Your task to perform on an android device: stop showing notifications on the lock screen Image 0: 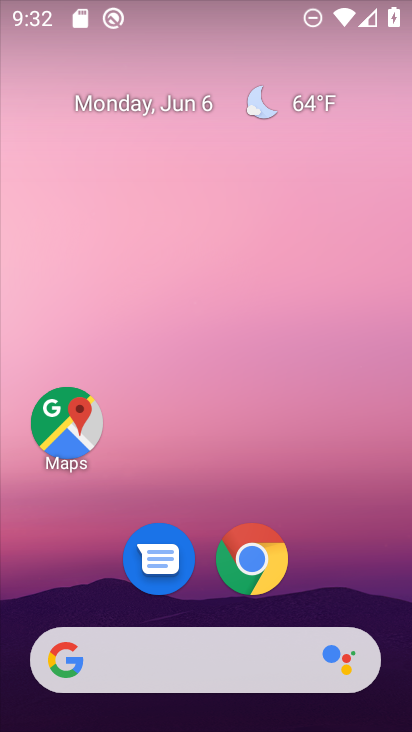
Step 0: drag from (235, 731) to (235, 28)
Your task to perform on an android device: stop showing notifications on the lock screen Image 1: 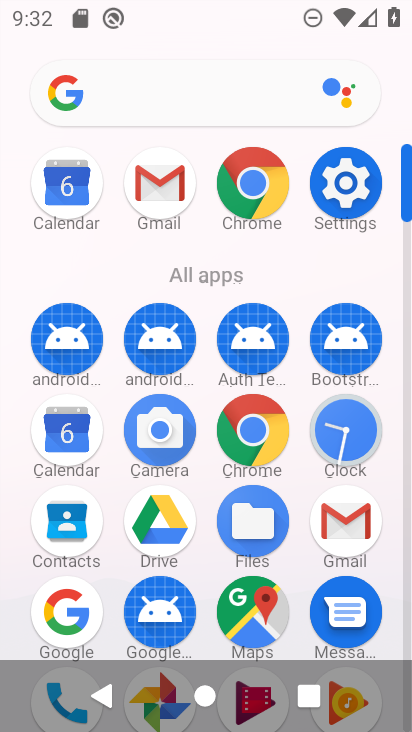
Step 1: click (360, 186)
Your task to perform on an android device: stop showing notifications on the lock screen Image 2: 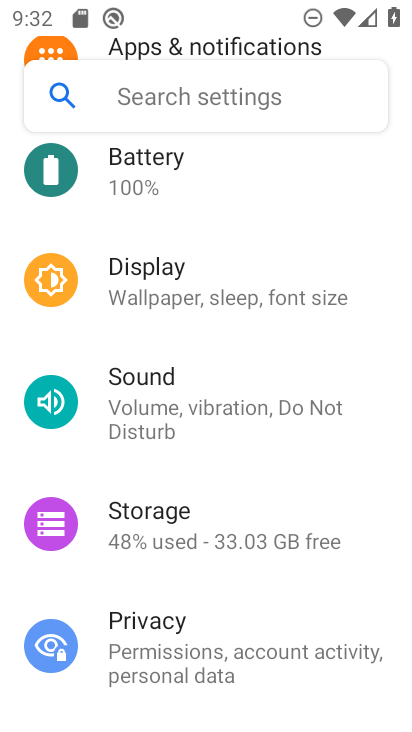
Step 2: drag from (246, 199) to (255, 567)
Your task to perform on an android device: stop showing notifications on the lock screen Image 3: 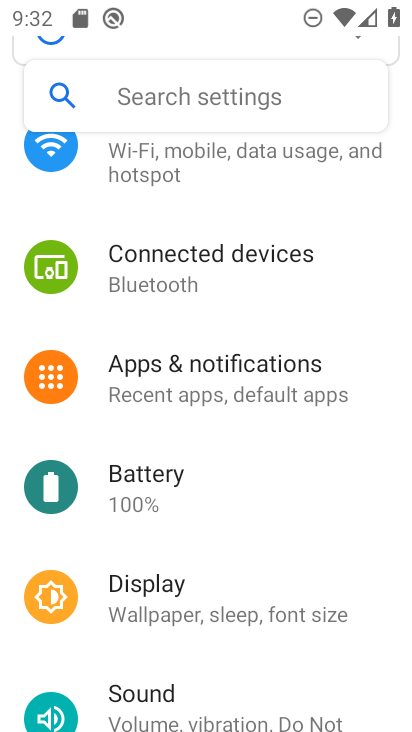
Step 3: click (209, 384)
Your task to perform on an android device: stop showing notifications on the lock screen Image 4: 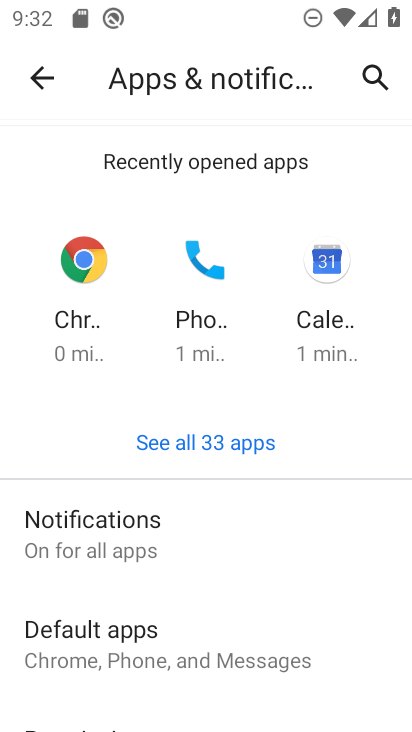
Step 4: click (114, 522)
Your task to perform on an android device: stop showing notifications on the lock screen Image 5: 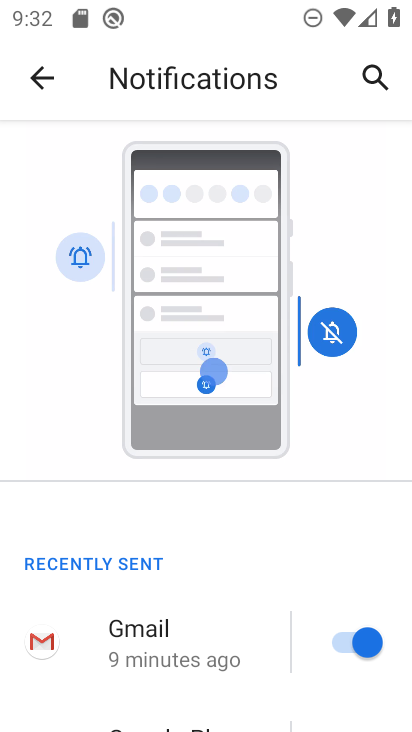
Step 5: drag from (225, 704) to (229, 393)
Your task to perform on an android device: stop showing notifications on the lock screen Image 6: 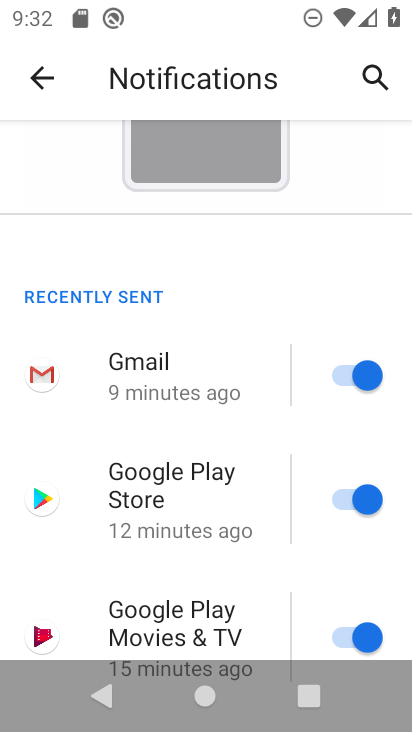
Step 6: drag from (248, 636) to (253, 350)
Your task to perform on an android device: stop showing notifications on the lock screen Image 7: 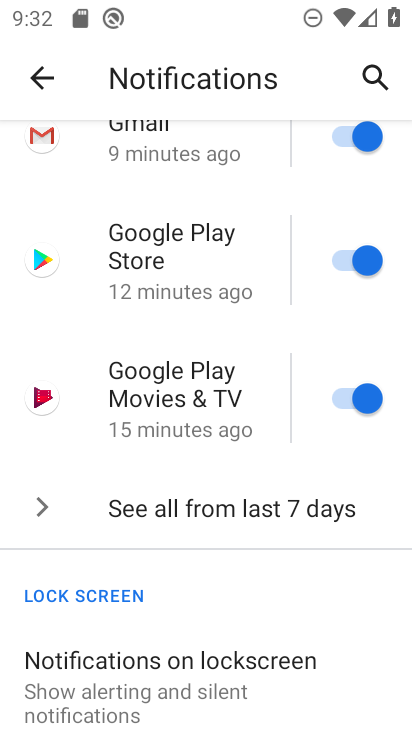
Step 7: drag from (188, 700) to (220, 401)
Your task to perform on an android device: stop showing notifications on the lock screen Image 8: 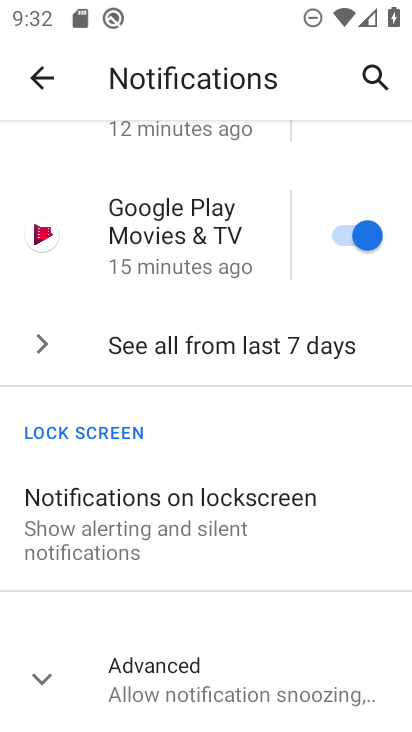
Step 8: click (115, 524)
Your task to perform on an android device: stop showing notifications on the lock screen Image 9: 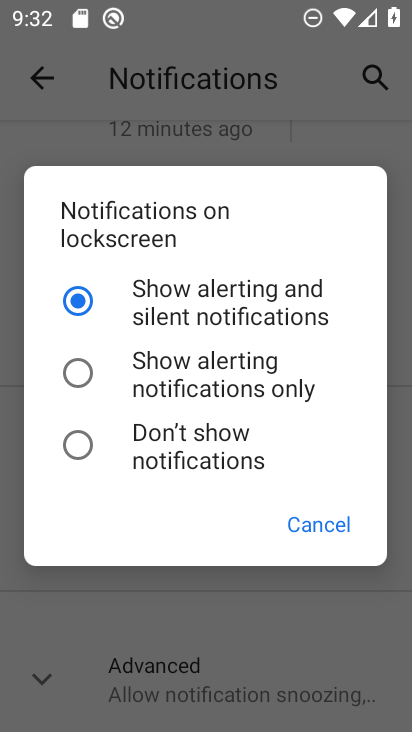
Step 9: click (74, 450)
Your task to perform on an android device: stop showing notifications on the lock screen Image 10: 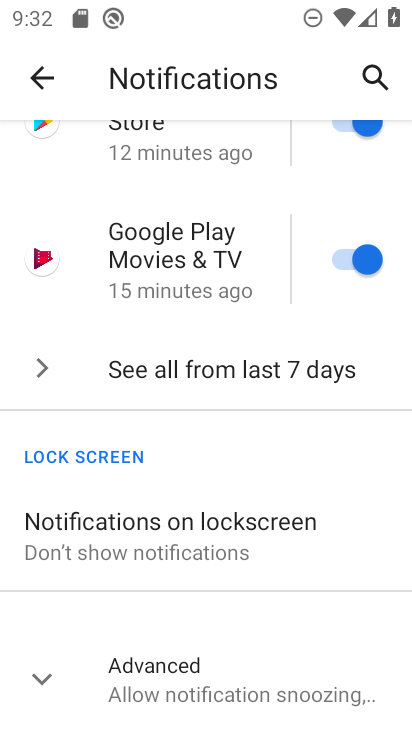
Step 10: task complete